Your task to perform on an android device: What's on my calendar today? Image 0: 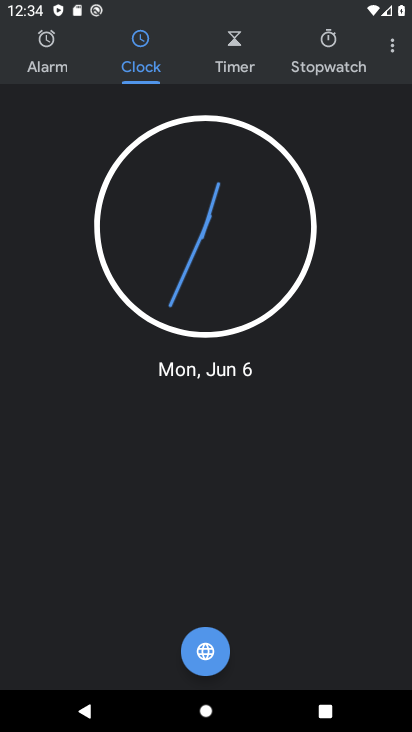
Step 0: press home button
Your task to perform on an android device: What's on my calendar today? Image 1: 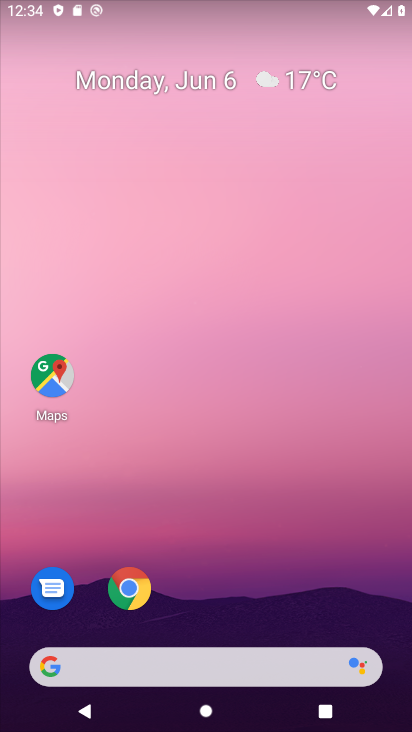
Step 1: drag from (252, 524) to (231, 1)
Your task to perform on an android device: What's on my calendar today? Image 2: 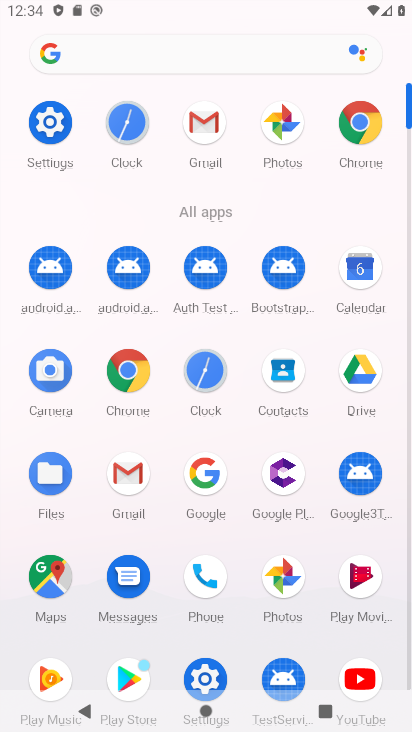
Step 2: click (363, 266)
Your task to perform on an android device: What's on my calendar today? Image 3: 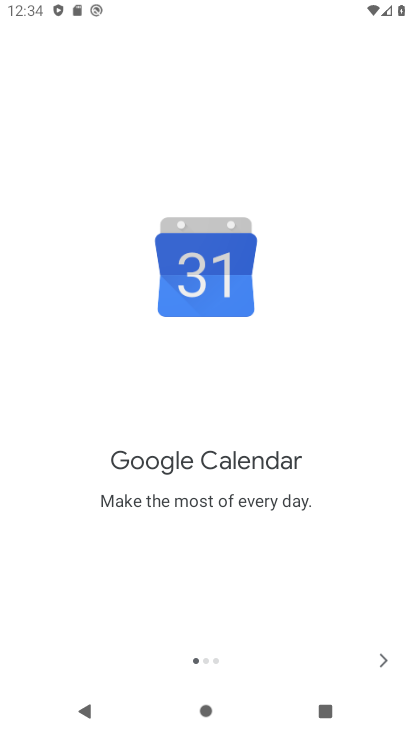
Step 3: click (388, 652)
Your task to perform on an android device: What's on my calendar today? Image 4: 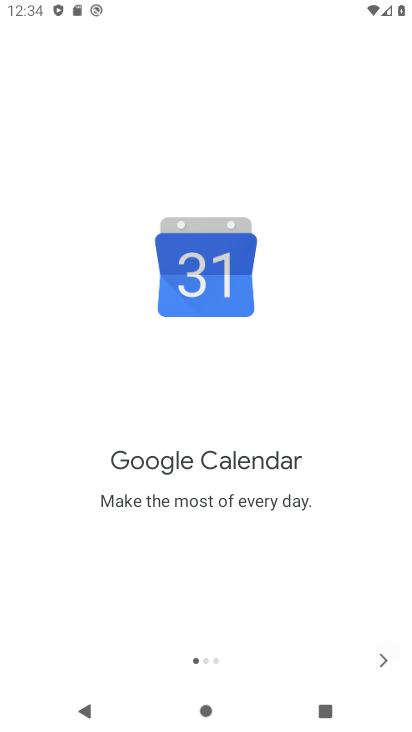
Step 4: click (388, 652)
Your task to perform on an android device: What's on my calendar today? Image 5: 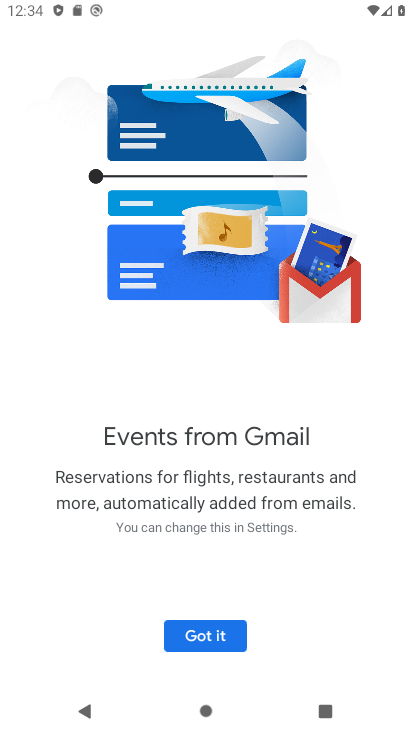
Step 5: click (388, 652)
Your task to perform on an android device: What's on my calendar today? Image 6: 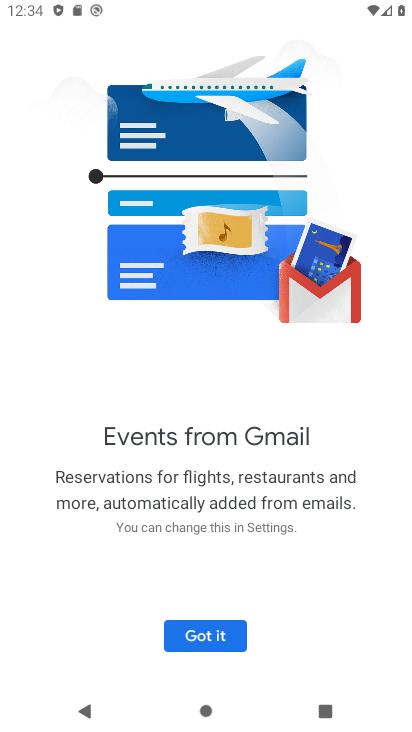
Step 6: click (205, 657)
Your task to perform on an android device: What's on my calendar today? Image 7: 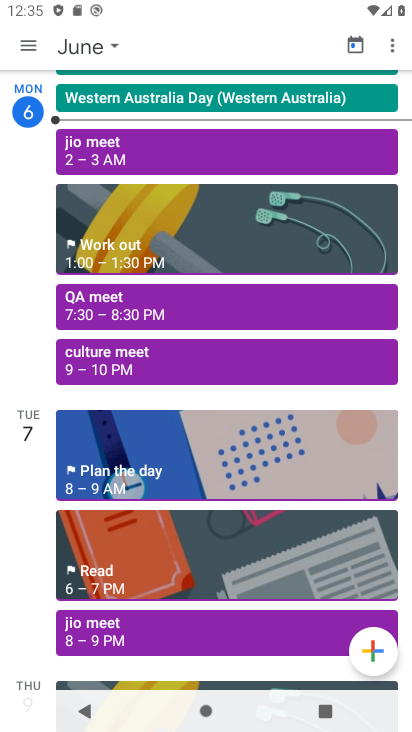
Step 7: click (109, 46)
Your task to perform on an android device: What's on my calendar today? Image 8: 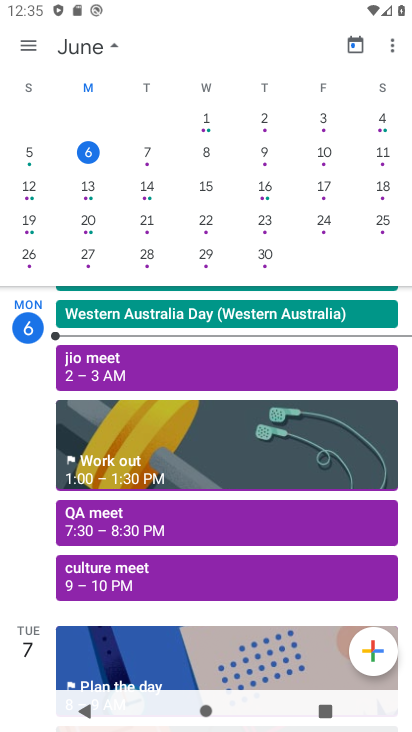
Step 8: click (86, 160)
Your task to perform on an android device: What's on my calendar today? Image 9: 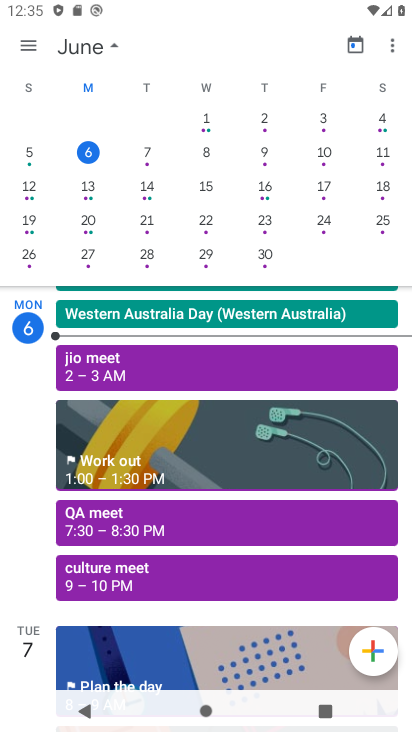
Step 9: click (85, 155)
Your task to perform on an android device: What's on my calendar today? Image 10: 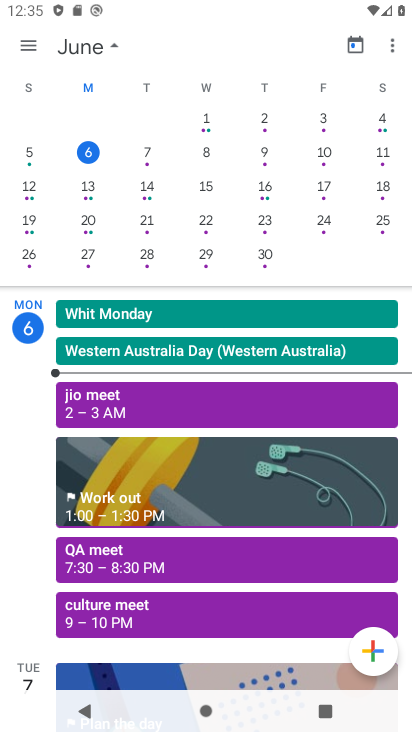
Step 10: click (24, 331)
Your task to perform on an android device: What's on my calendar today? Image 11: 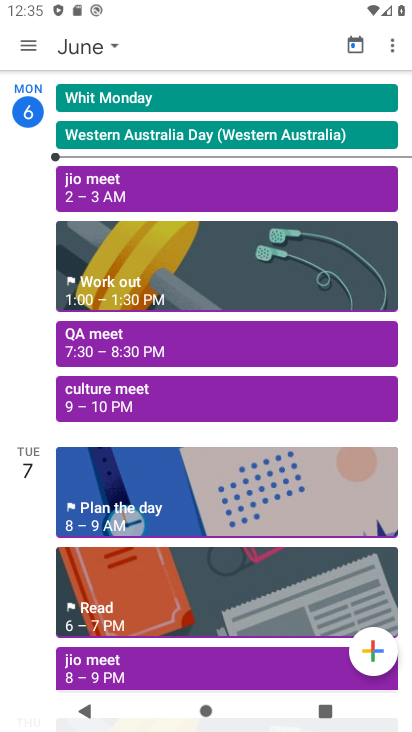
Step 11: task complete